Your task to perform on an android device: Open Reddit.com Image 0: 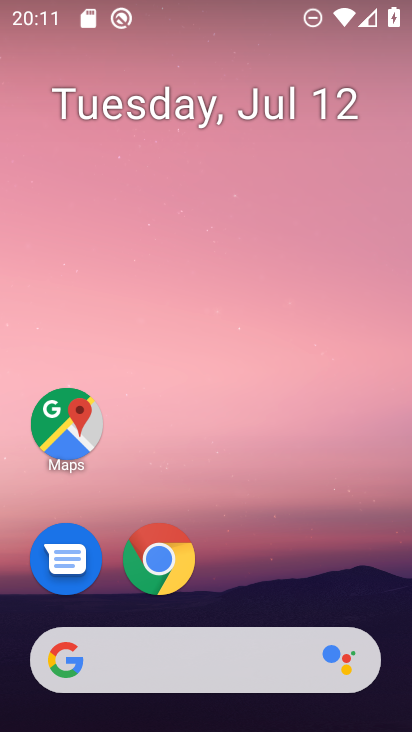
Step 0: drag from (358, 578) to (355, 60)
Your task to perform on an android device: Open Reddit.com Image 1: 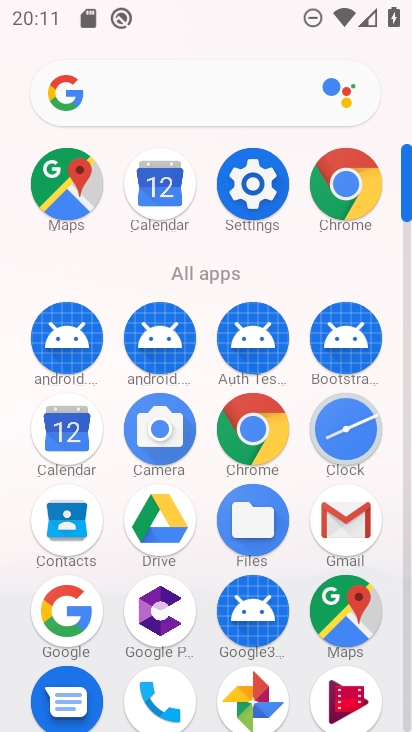
Step 1: click (254, 425)
Your task to perform on an android device: Open Reddit.com Image 2: 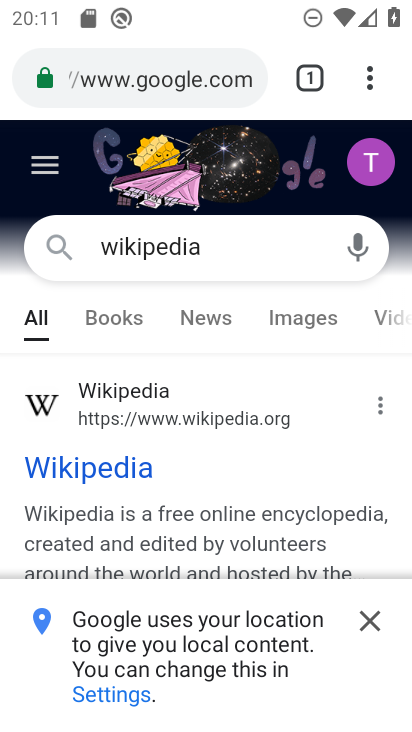
Step 2: click (194, 82)
Your task to perform on an android device: Open Reddit.com Image 3: 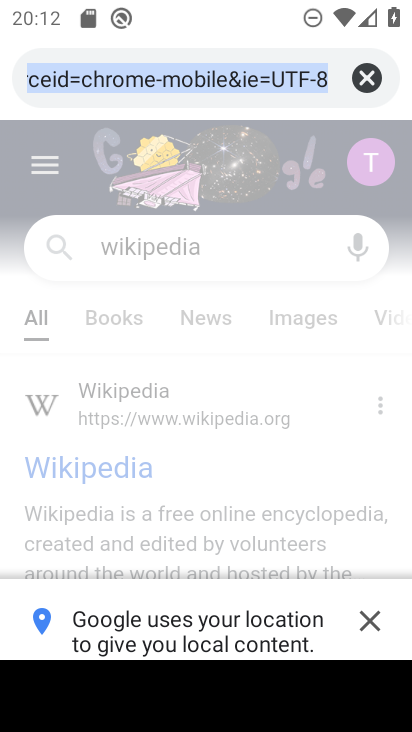
Step 3: type "reddit.com"
Your task to perform on an android device: Open Reddit.com Image 4: 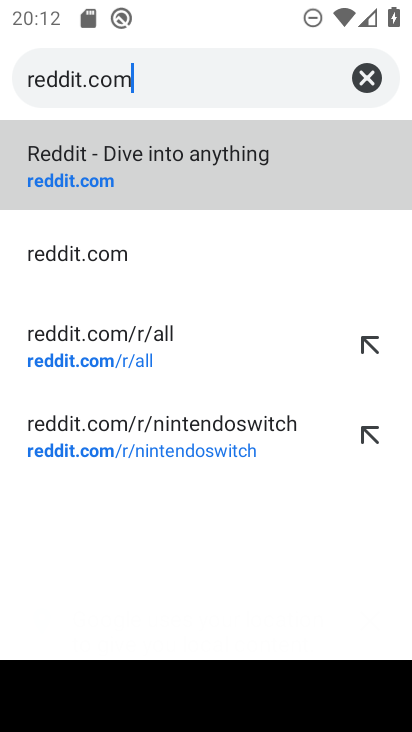
Step 4: click (300, 168)
Your task to perform on an android device: Open Reddit.com Image 5: 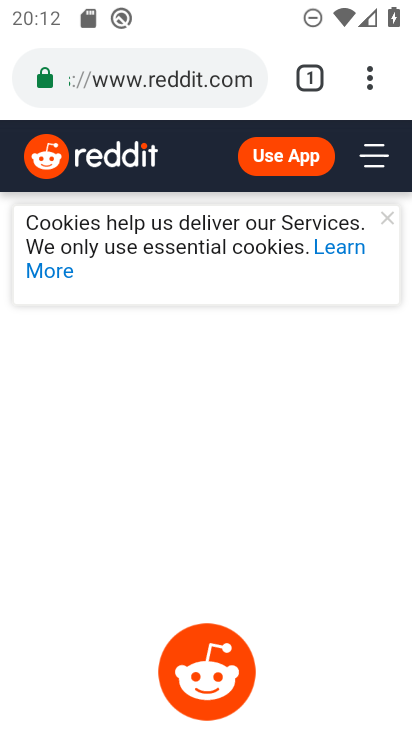
Step 5: task complete